Your task to perform on an android device: Open eBay Image 0: 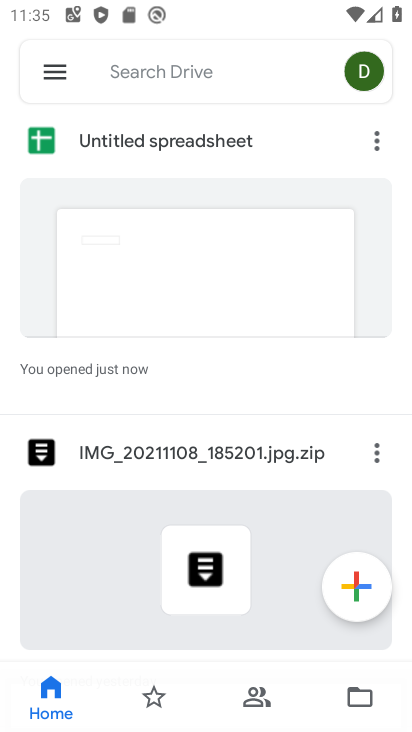
Step 0: press home button
Your task to perform on an android device: Open eBay Image 1: 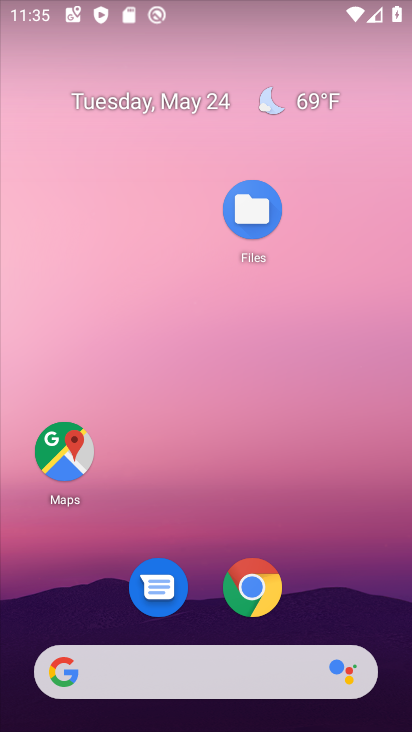
Step 1: click (263, 580)
Your task to perform on an android device: Open eBay Image 2: 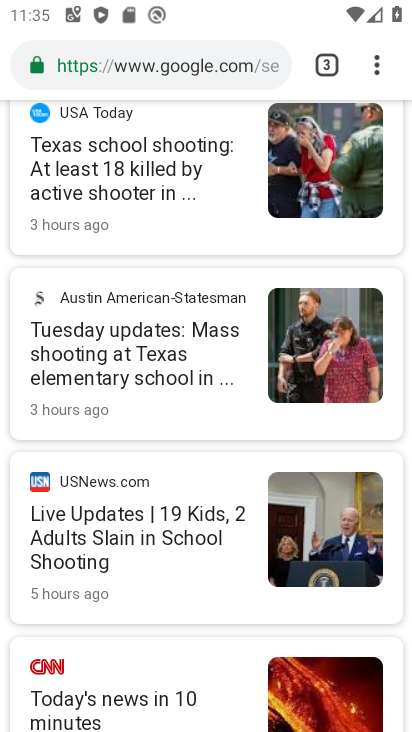
Step 2: click (326, 69)
Your task to perform on an android device: Open eBay Image 3: 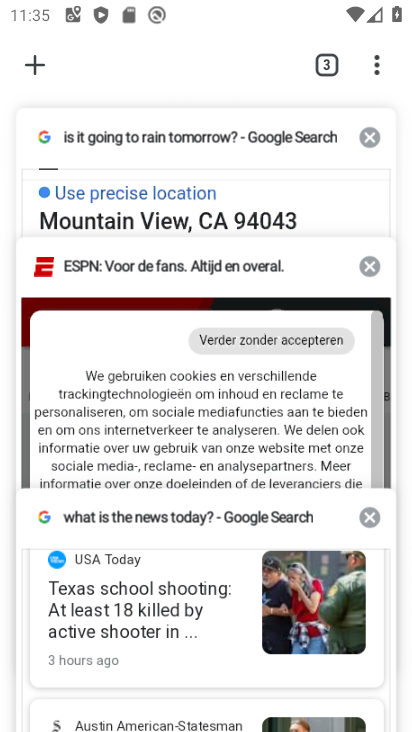
Step 3: click (40, 63)
Your task to perform on an android device: Open eBay Image 4: 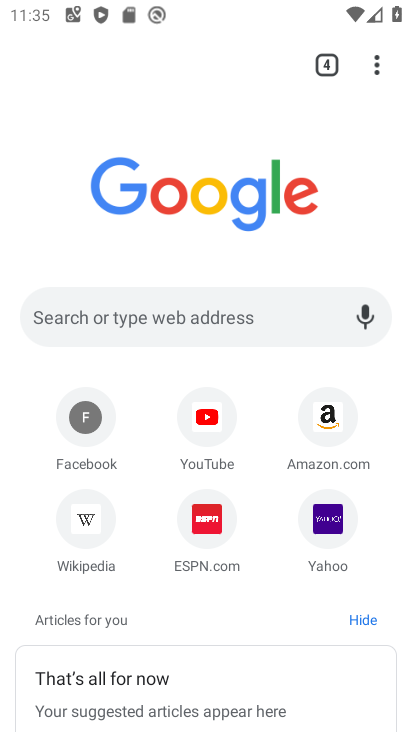
Step 4: click (113, 320)
Your task to perform on an android device: Open eBay Image 5: 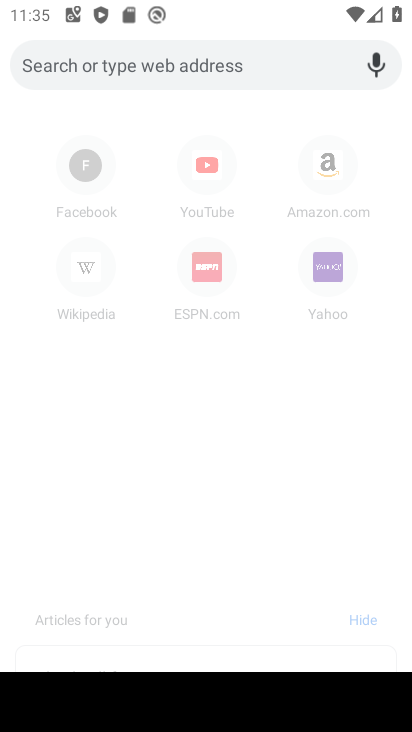
Step 5: type "ebay"
Your task to perform on an android device: Open eBay Image 6: 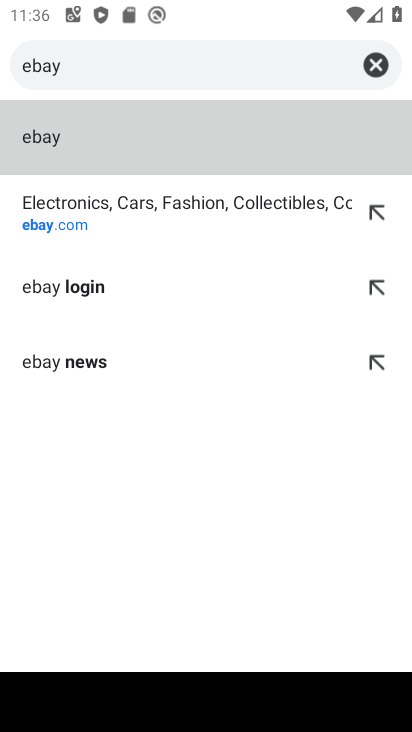
Step 6: click (245, 207)
Your task to perform on an android device: Open eBay Image 7: 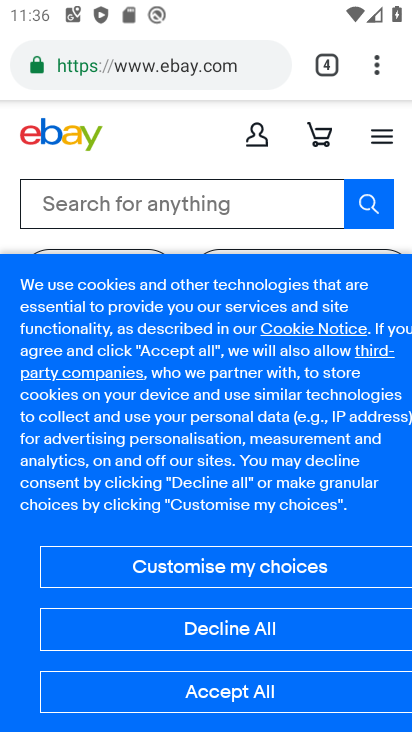
Step 7: click (269, 692)
Your task to perform on an android device: Open eBay Image 8: 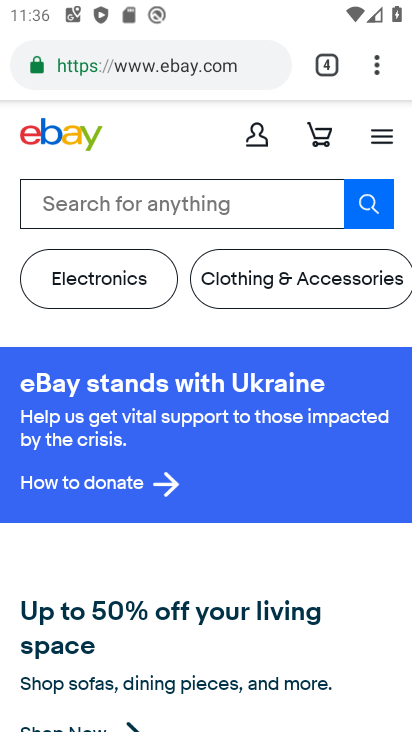
Step 8: task complete